Your task to perform on an android device: check android version Image 0: 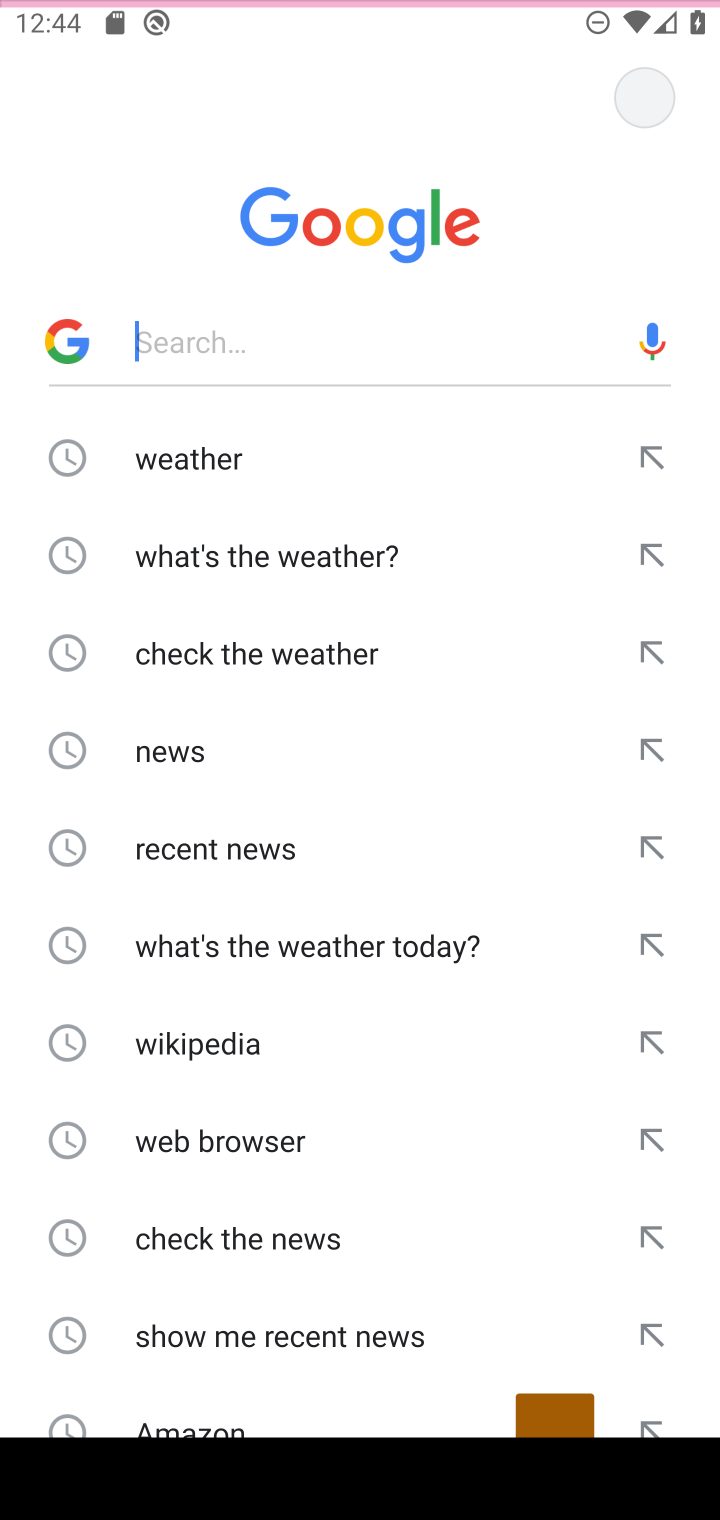
Step 0: press back button
Your task to perform on an android device: check android version Image 1: 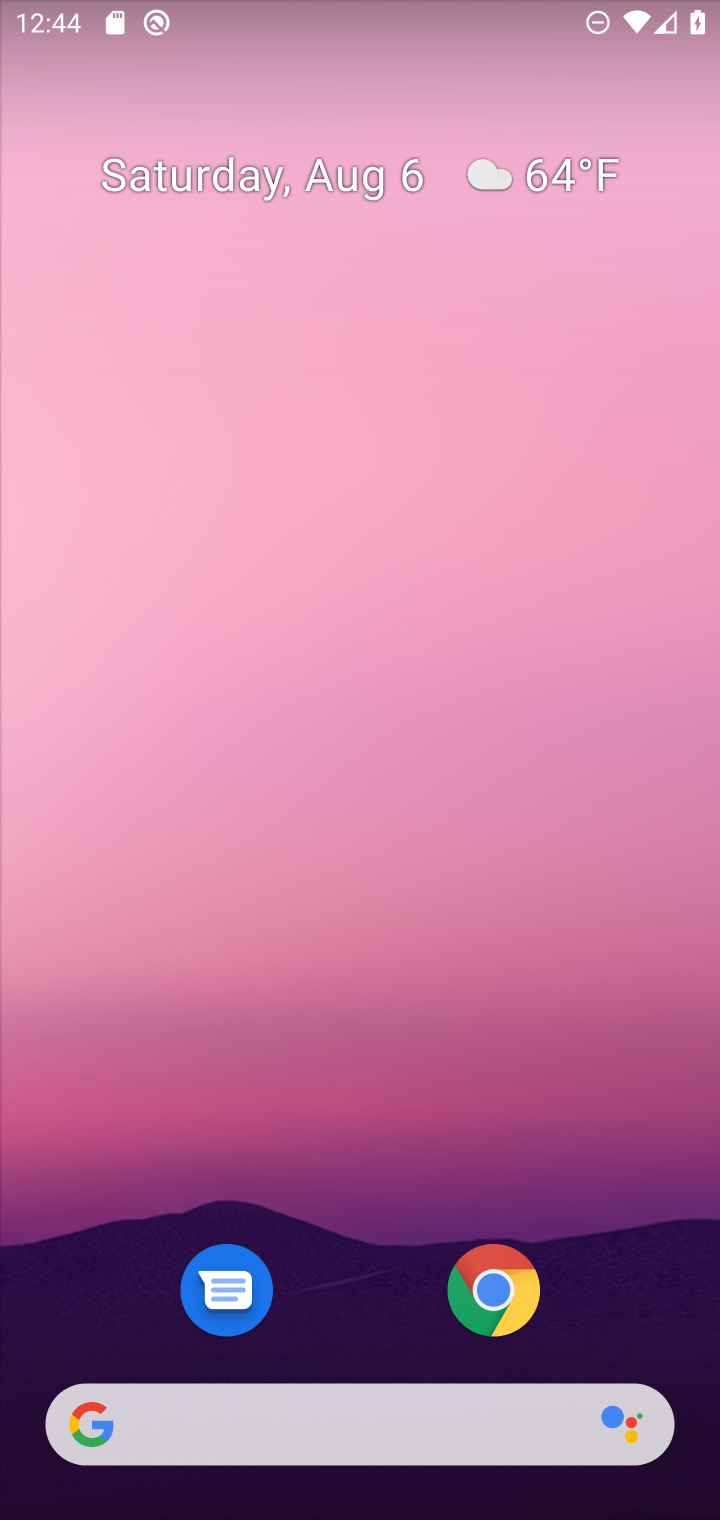
Step 1: press back button
Your task to perform on an android device: check android version Image 2: 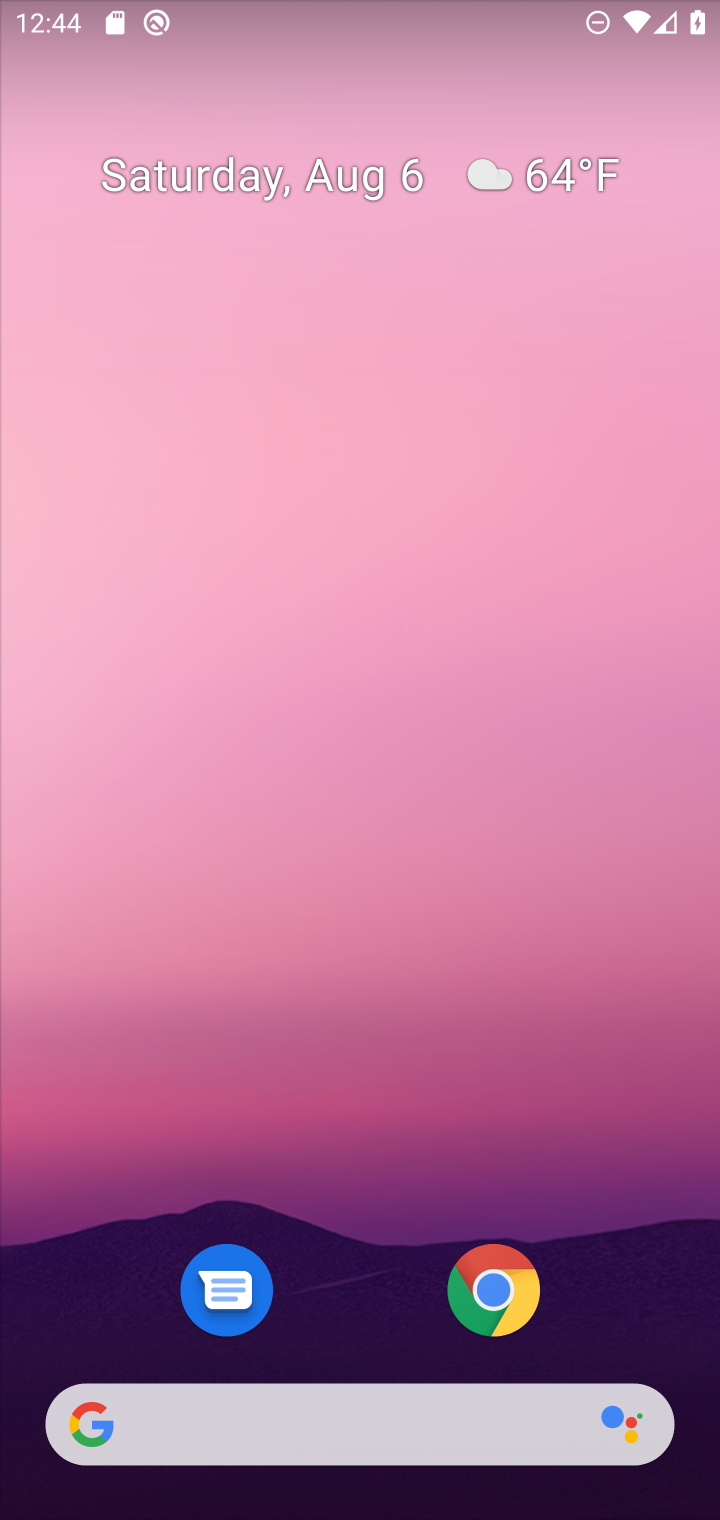
Step 2: drag from (410, 1404) to (184, 21)
Your task to perform on an android device: check android version Image 3: 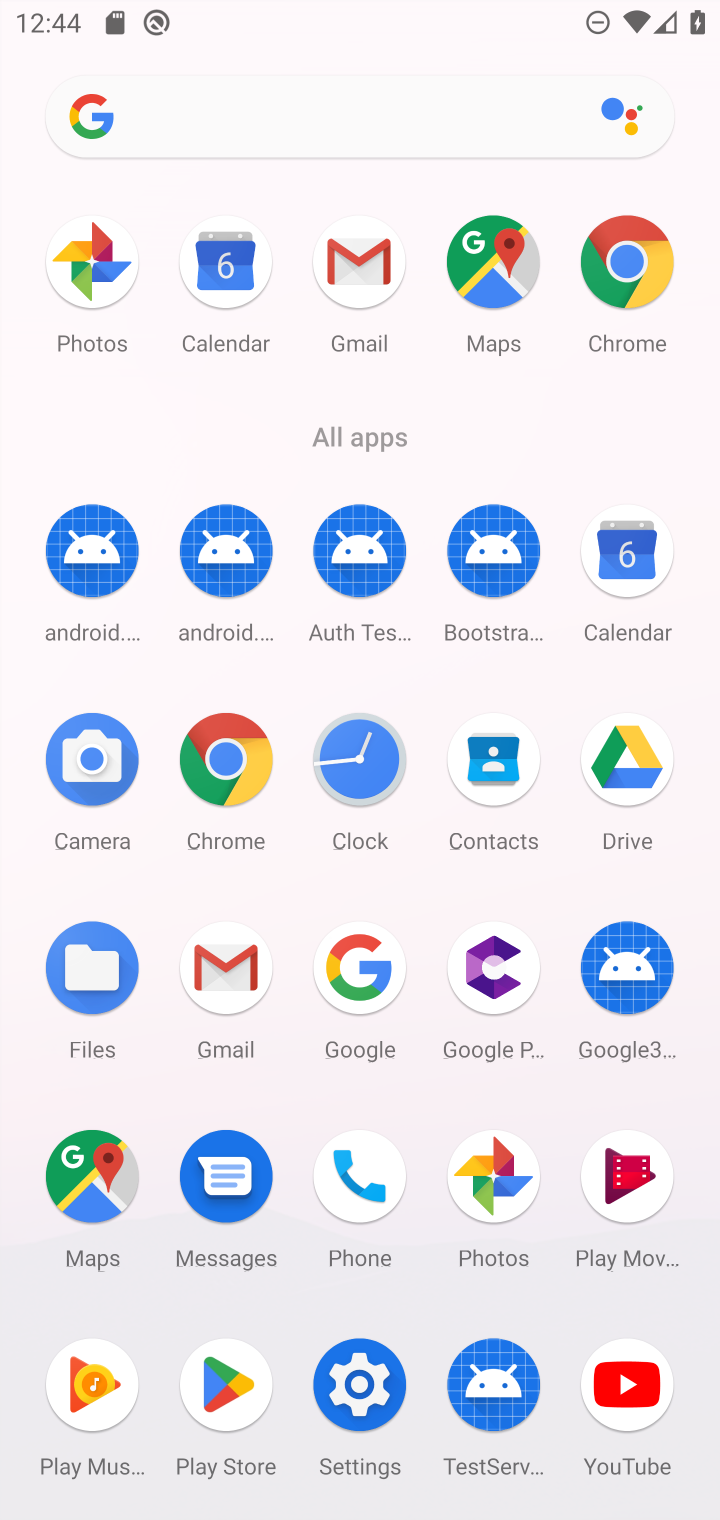
Step 3: click (383, 1370)
Your task to perform on an android device: check android version Image 4: 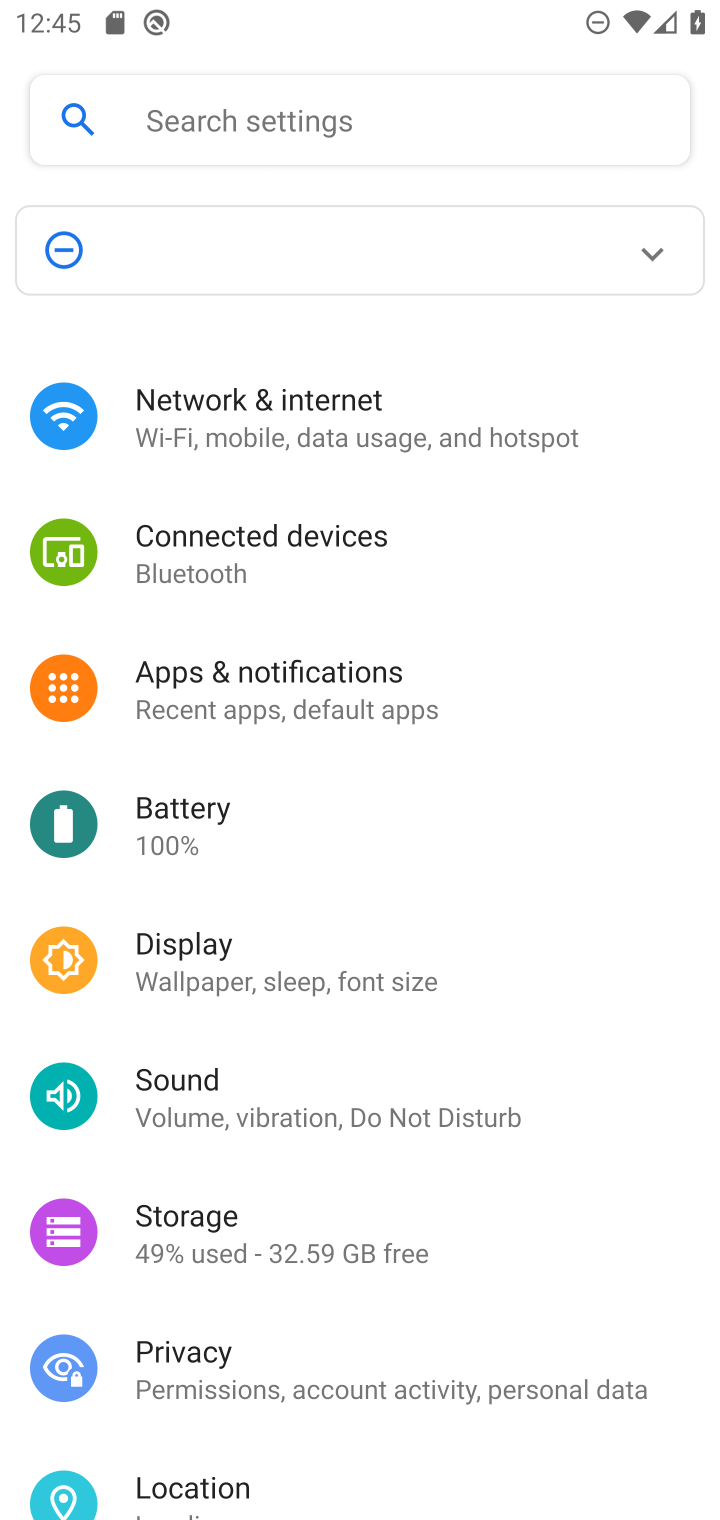
Step 4: click (437, 1363)
Your task to perform on an android device: check android version Image 5: 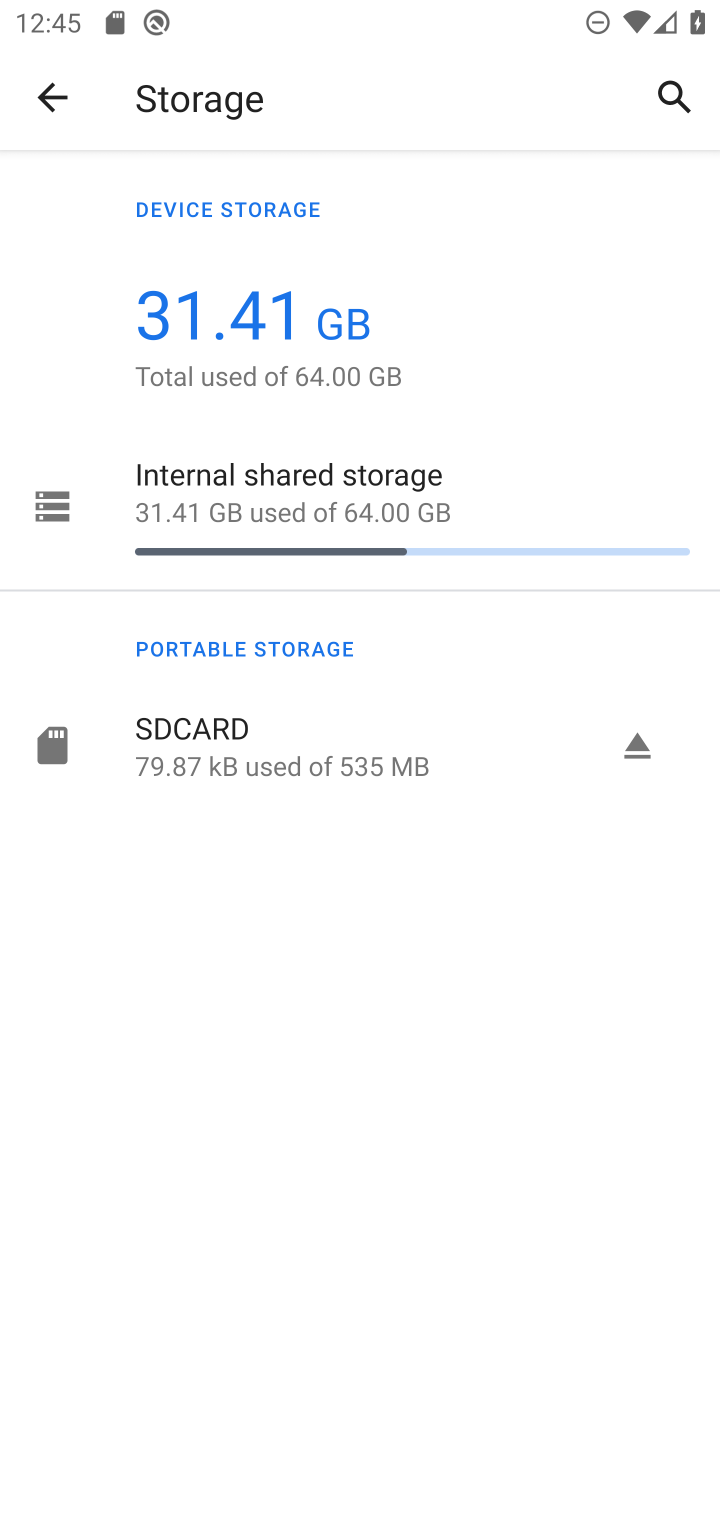
Step 5: click (59, 85)
Your task to perform on an android device: check android version Image 6: 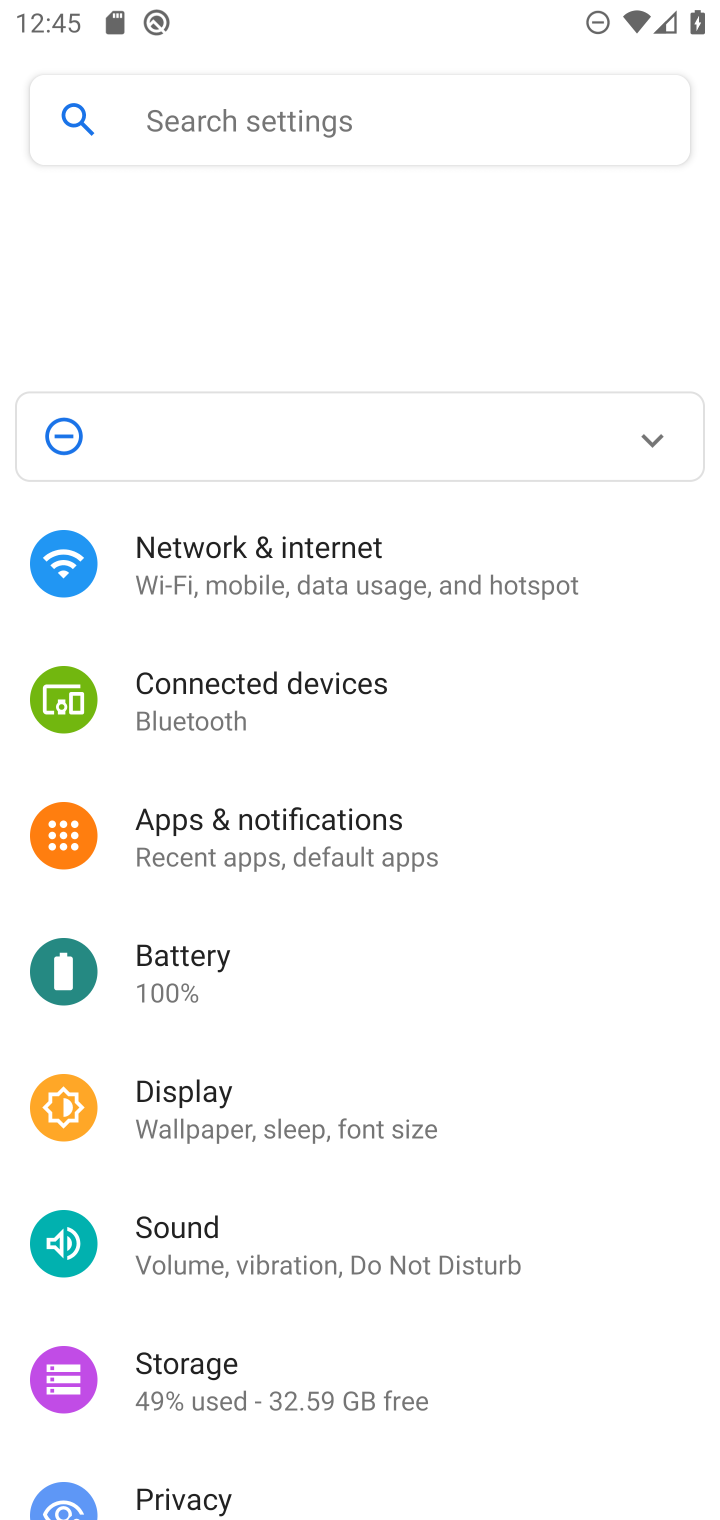
Step 6: drag from (320, 1042) to (312, 164)
Your task to perform on an android device: check android version Image 7: 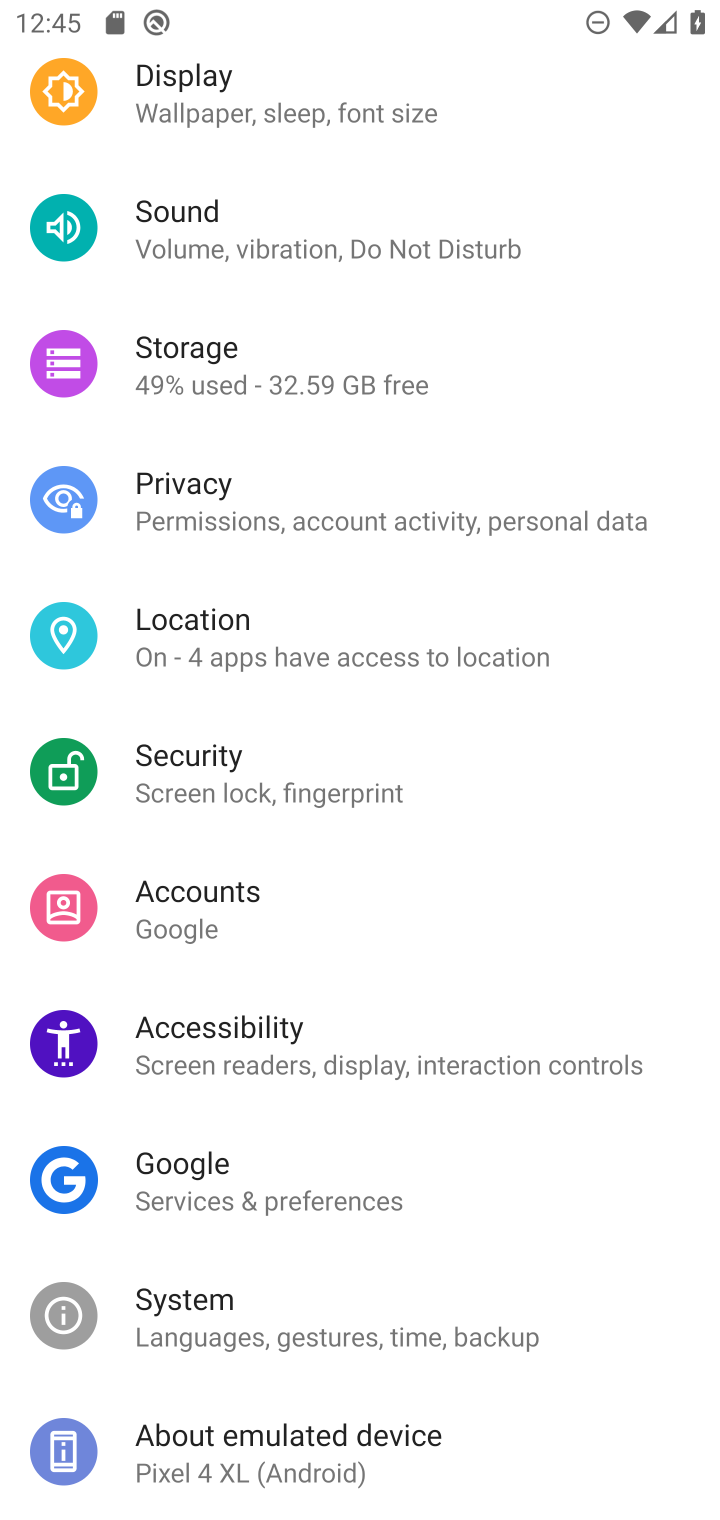
Step 7: drag from (372, 1384) to (322, 284)
Your task to perform on an android device: check android version Image 8: 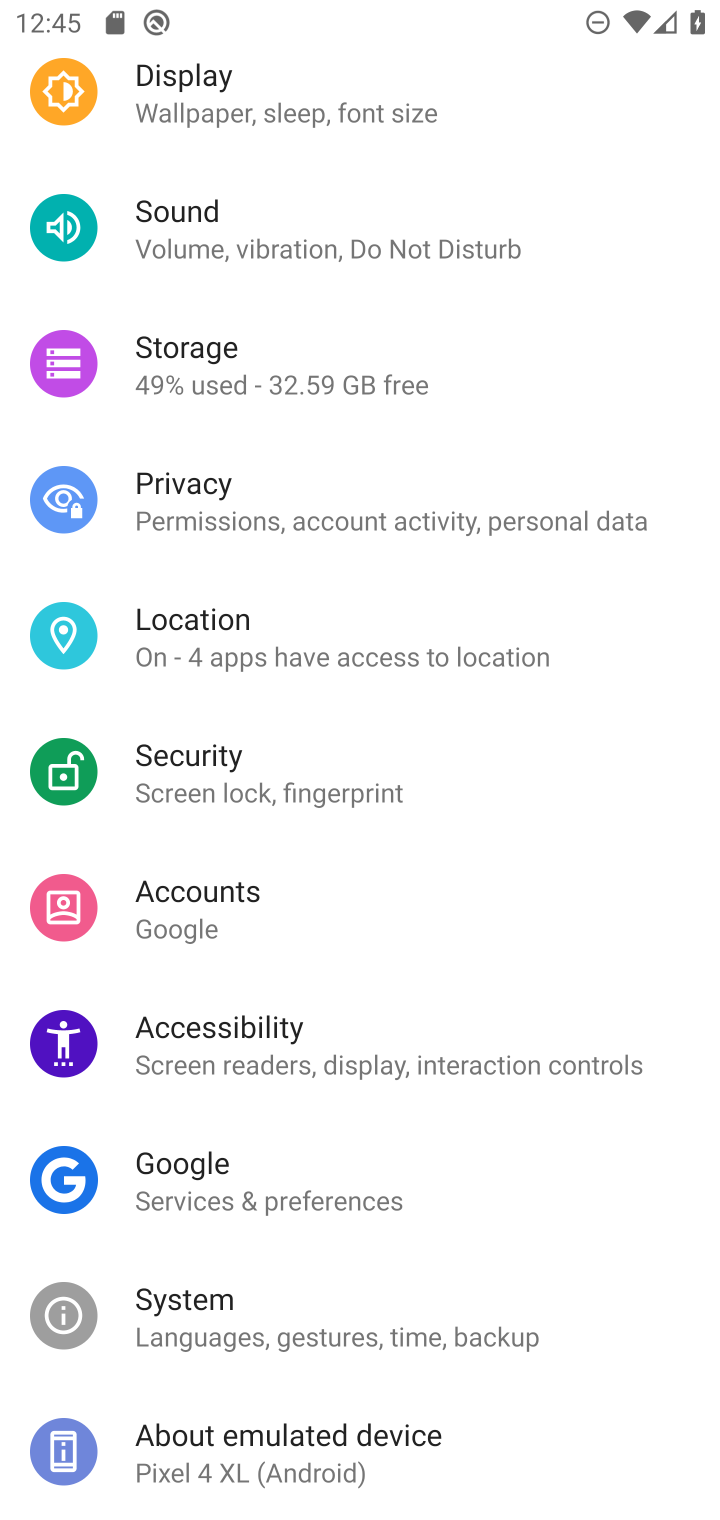
Step 8: click (214, 1449)
Your task to perform on an android device: check android version Image 9: 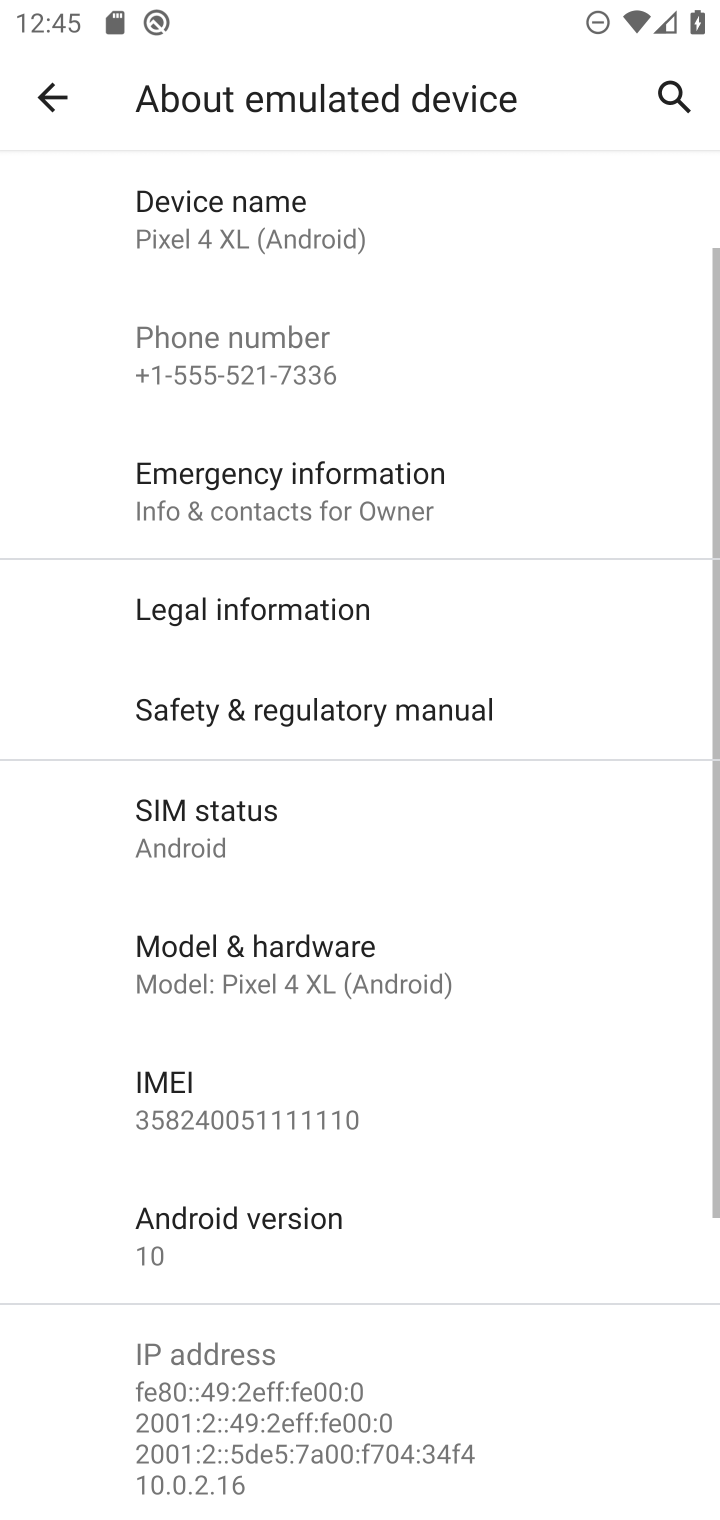
Step 9: click (208, 1246)
Your task to perform on an android device: check android version Image 10: 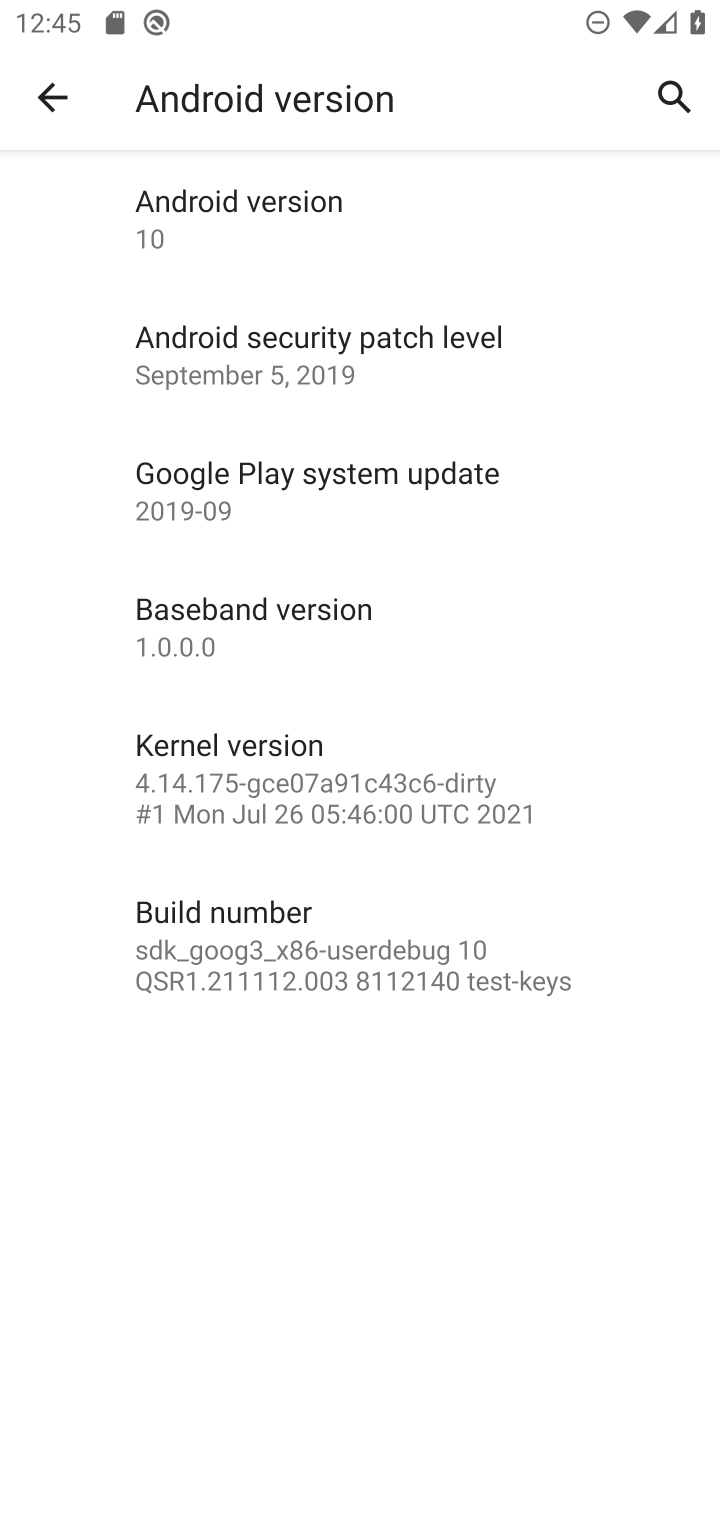
Step 10: task complete